Your task to perform on an android device: Toggle the flashlight Image 0: 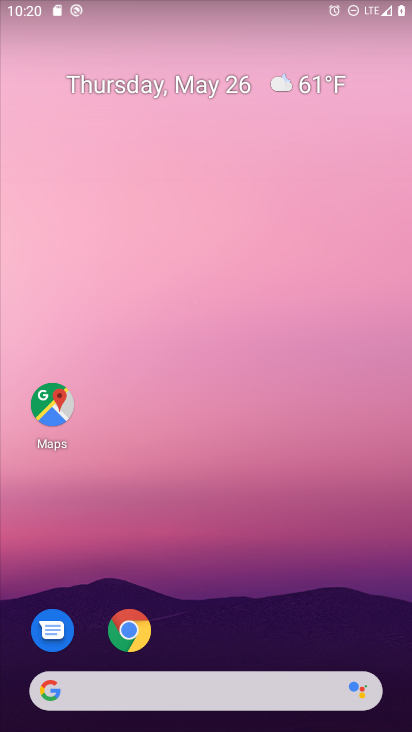
Step 0: drag from (223, 640) to (255, 238)
Your task to perform on an android device: Toggle the flashlight Image 1: 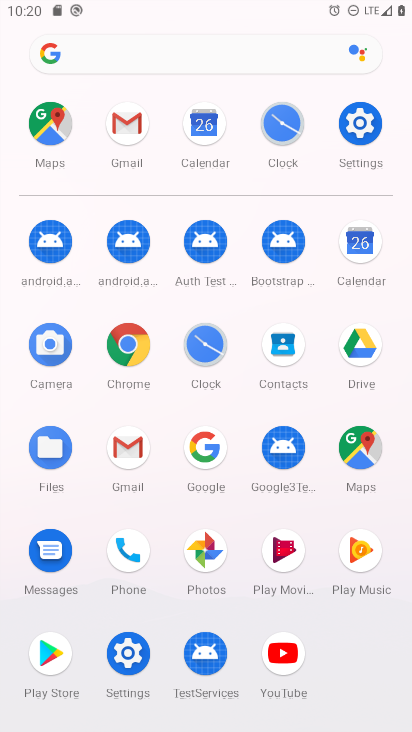
Step 1: click (375, 118)
Your task to perform on an android device: Toggle the flashlight Image 2: 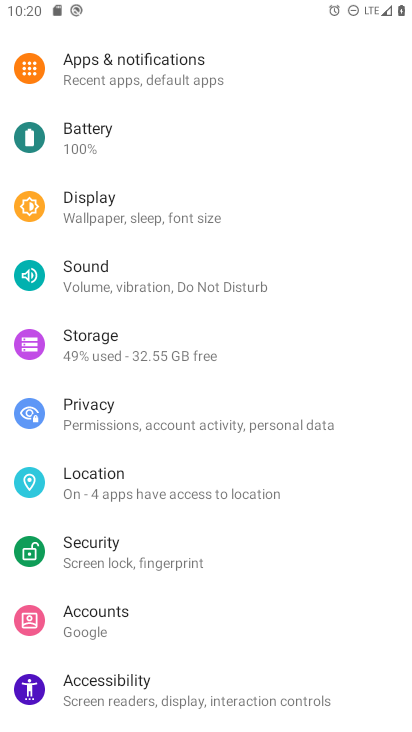
Step 2: drag from (279, 97) to (127, 669)
Your task to perform on an android device: Toggle the flashlight Image 3: 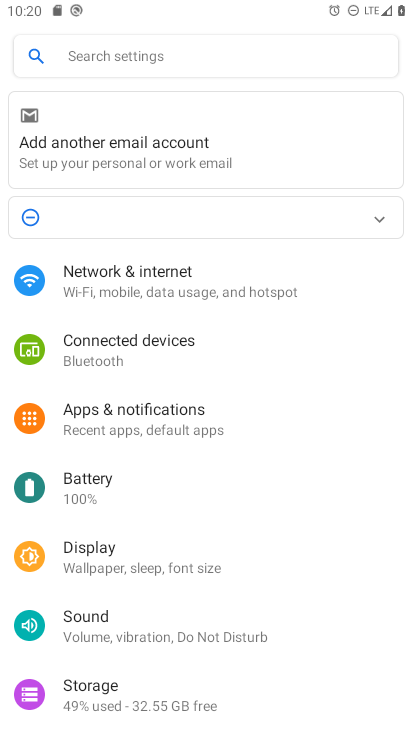
Step 3: click (102, 48)
Your task to perform on an android device: Toggle the flashlight Image 4: 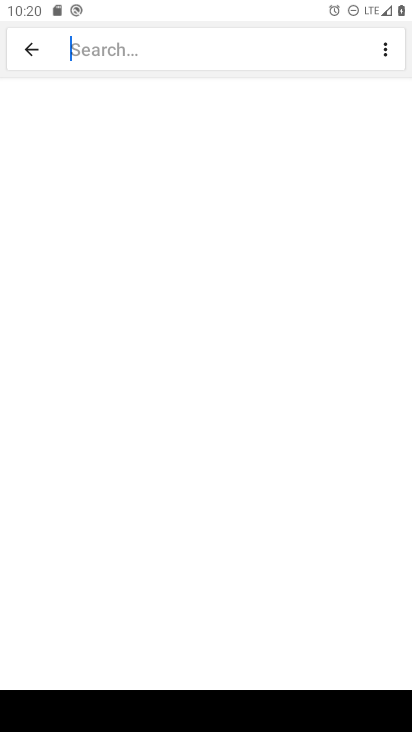
Step 4: type "flashlight"
Your task to perform on an android device: Toggle the flashlight Image 5: 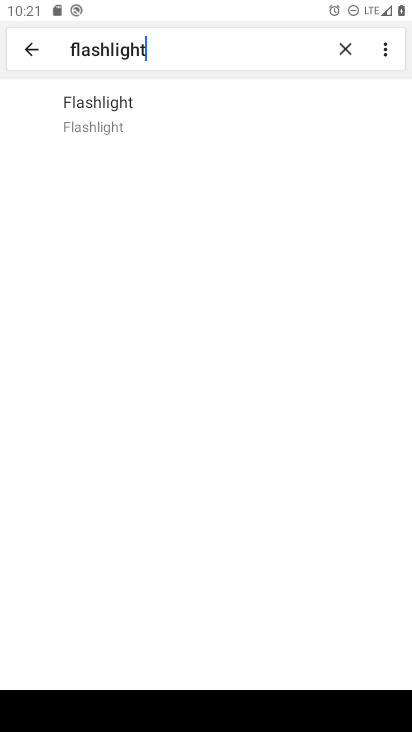
Step 5: click (249, 136)
Your task to perform on an android device: Toggle the flashlight Image 6: 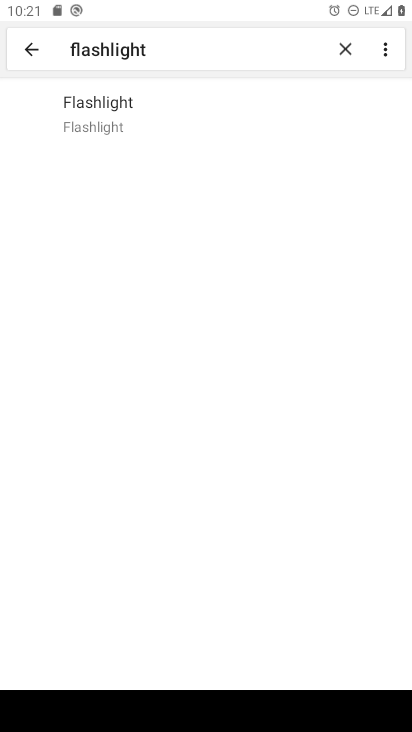
Step 6: task complete